Your task to perform on an android device: Search for the new Apple Watch on Best Buy Image 0: 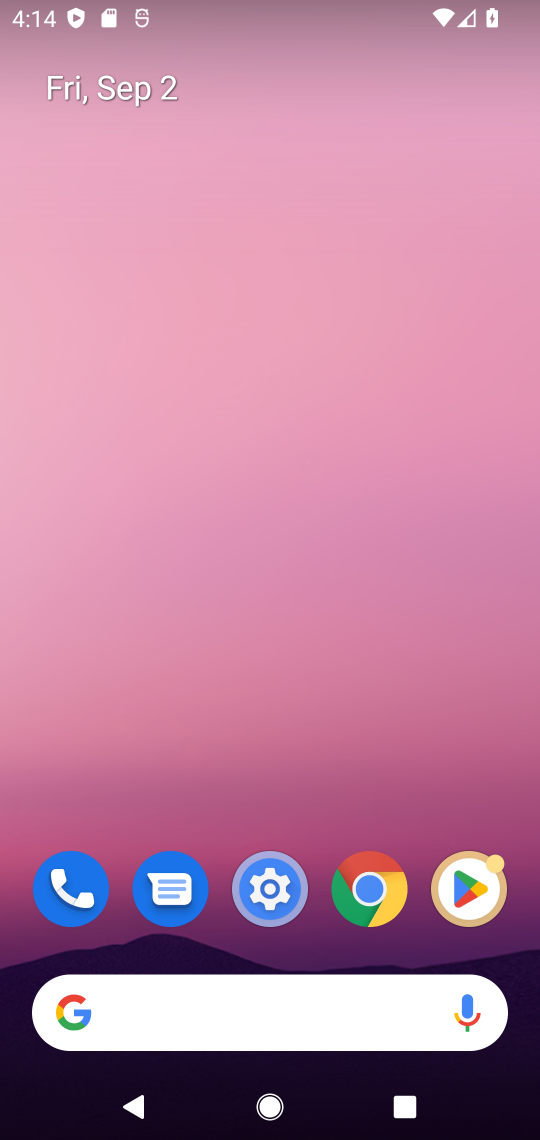
Step 0: click (251, 1019)
Your task to perform on an android device: Search for the new Apple Watch on Best Buy Image 1: 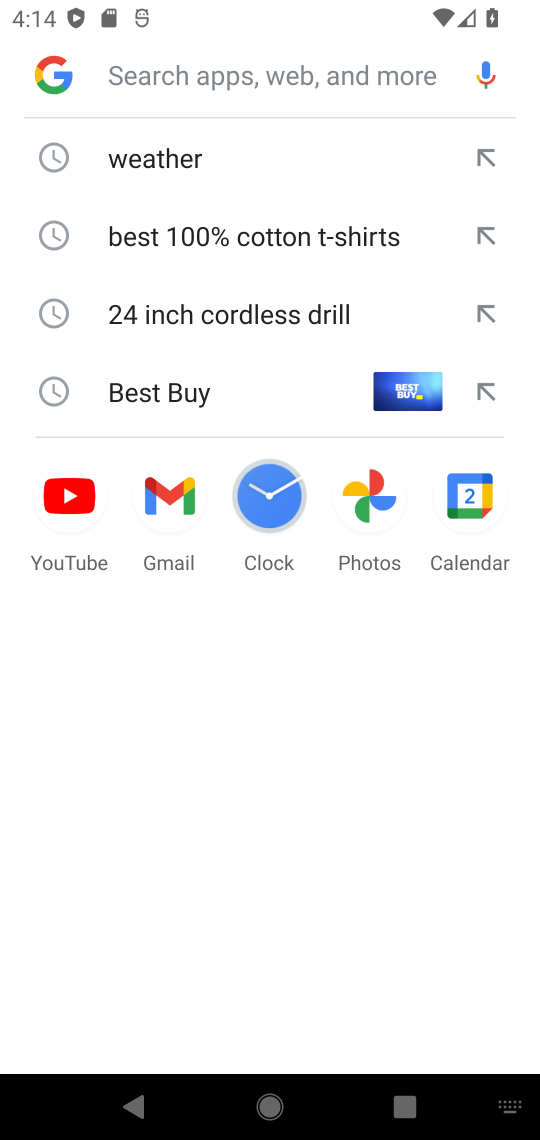
Step 1: type "Best Buy"
Your task to perform on an android device: Search for the new Apple Watch on Best Buy Image 2: 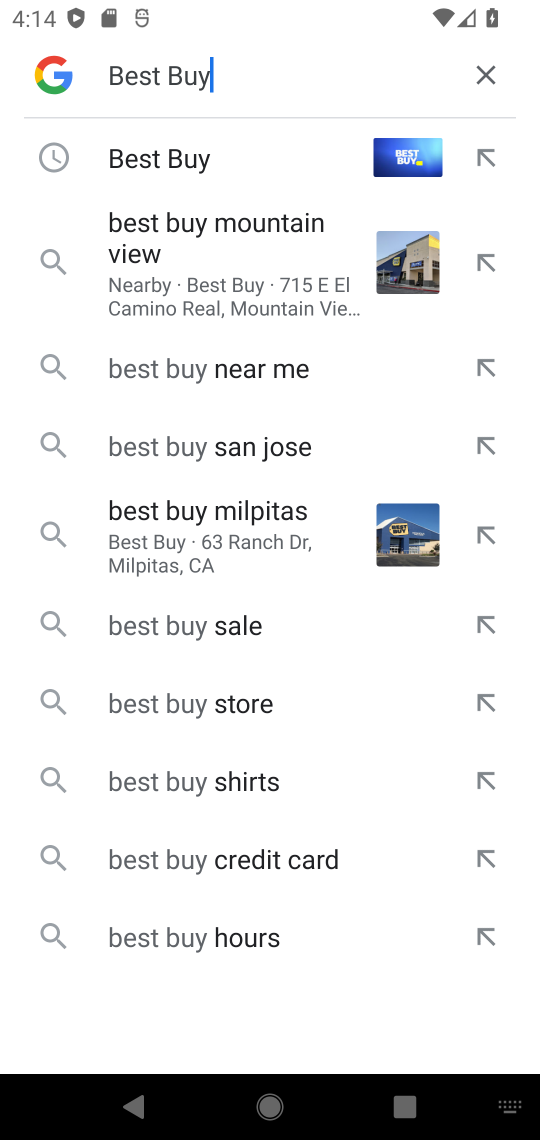
Step 2: click (167, 152)
Your task to perform on an android device: Search for the new Apple Watch on Best Buy Image 3: 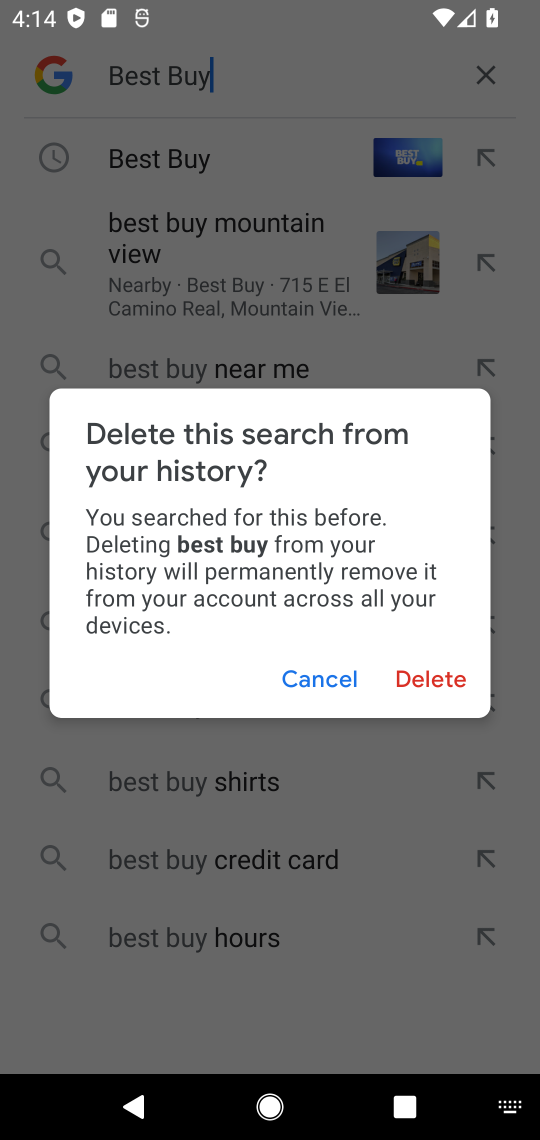
Step 3: click (348, 676)
Your task to perform on an android device: Search for the new Apple Watch on Best Buy Image 4: 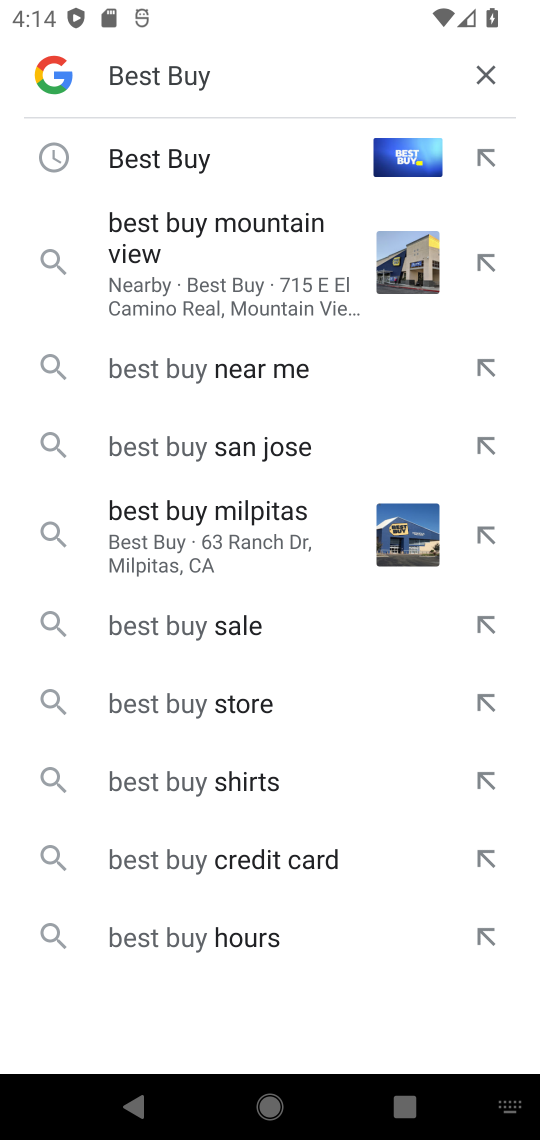
Step 4: click (173, 144)
Your task to perform on an android device: Search for the new Apple Watch on Best Buy Image 5: 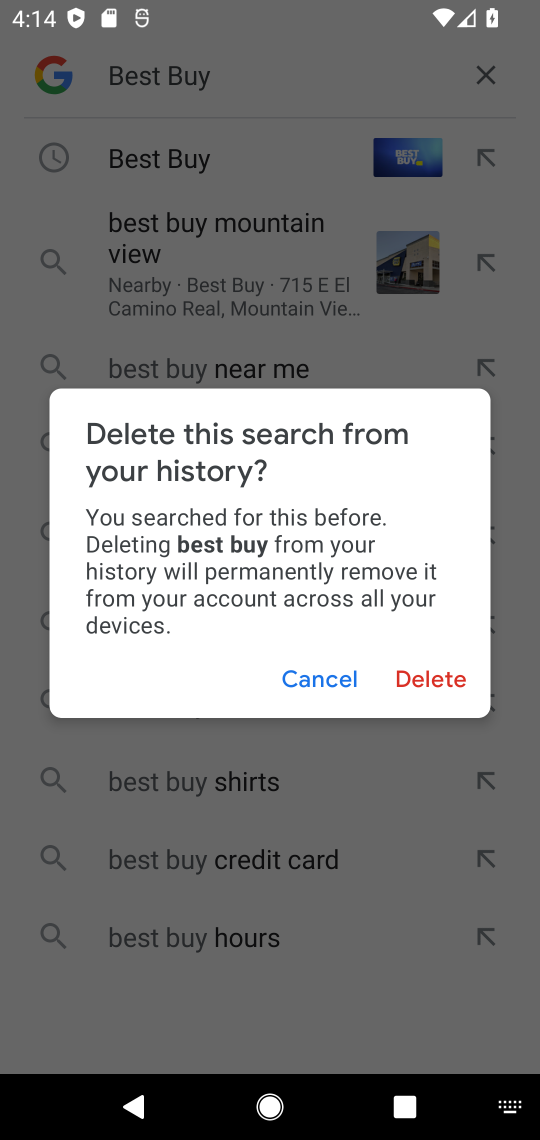
Step 5: click (346, 692)
Your task to perform on an android device: Search for the new Apple Watch on Best Buy Image 6: 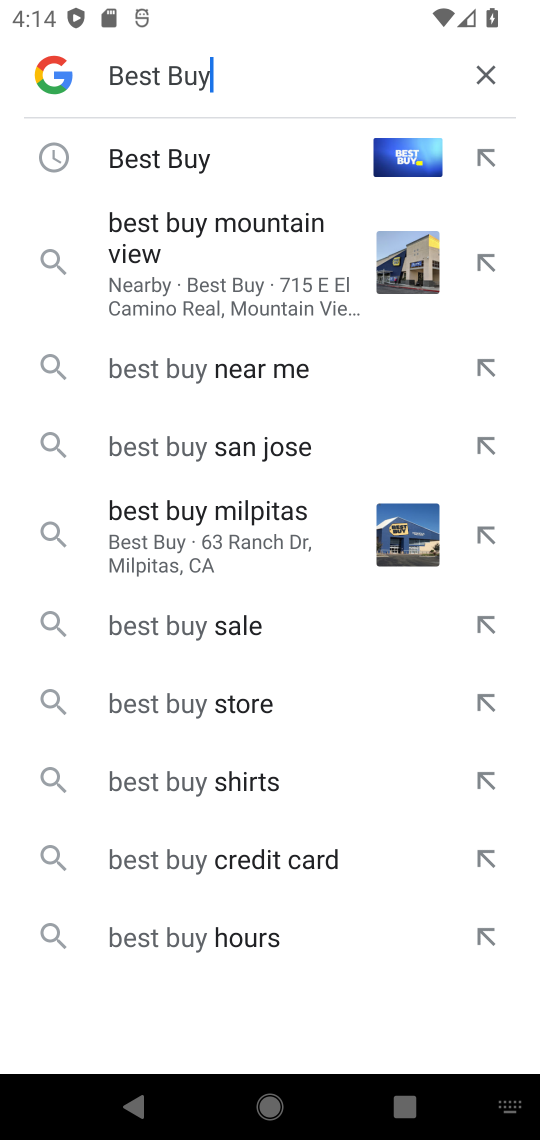
Step 6: click (171, 172)
Your task to perform on an android device: Search for the new Apple Watch on Best Buy Image 7: 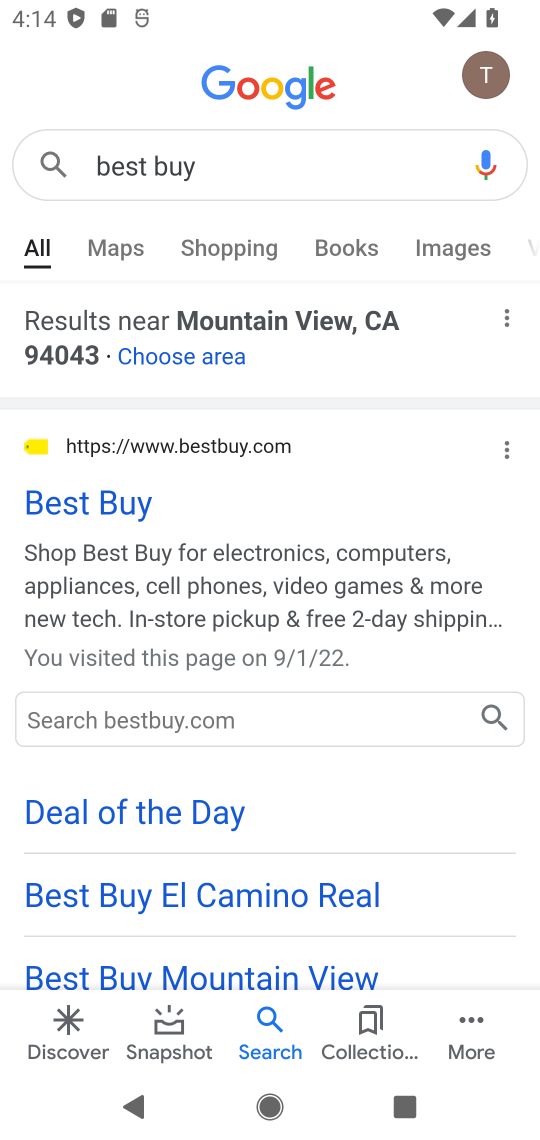
Step 7: click (99, 507)
Your task to perform on an android device: Search for the new Apple Watch on Best Buy Image 8: 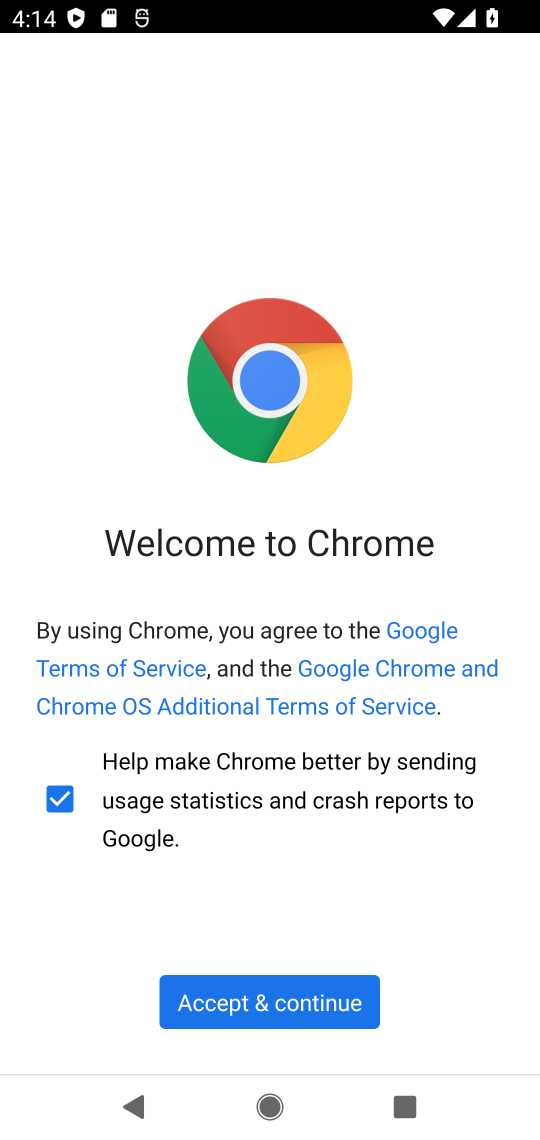
Step 8: click (172, 983)
Your task to perform on an android device: Search for the new Apple Watch on Best Buy Image 9: 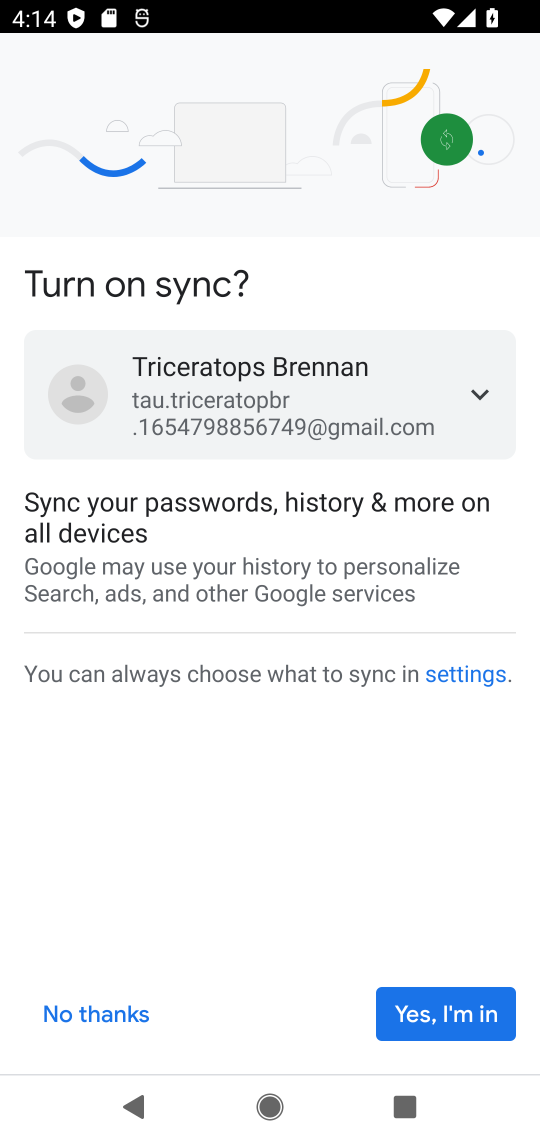
Step 9: click (463, 1028)
Your task to perform on an android device: Search for the new Apple Watch on Best Buy Image 10: 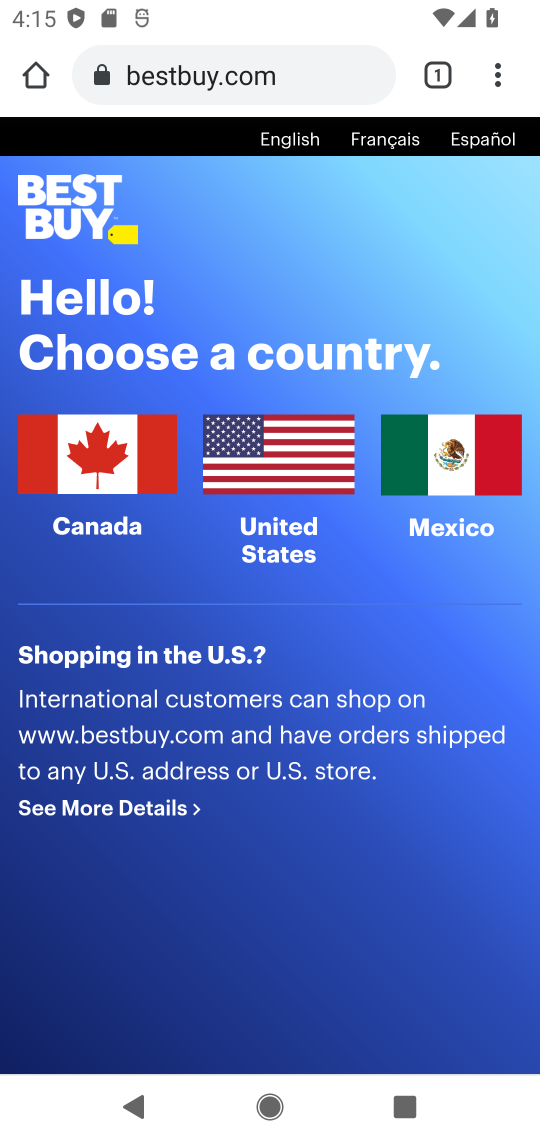
Step 10: drag from (338, 827) to (427, 272)
Your task to perform on an android device: Search for the new Apple Watch on Best Buy Image 11: 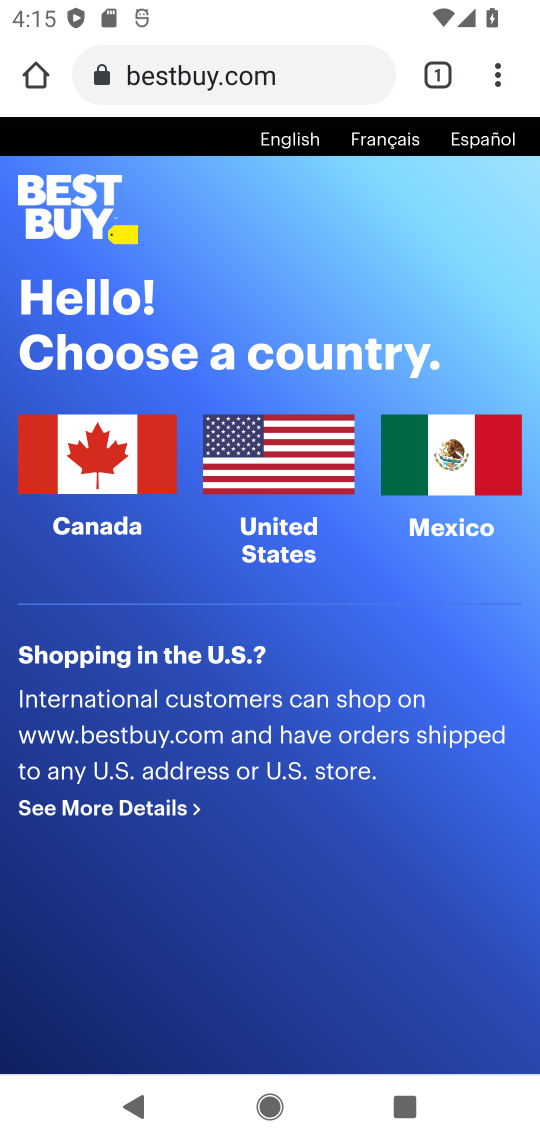
Step 11: drag from (357, 764) to (360, 317)
Your task to perform on an android device: Search for the new Apple Watch on Best Buy Image 12: 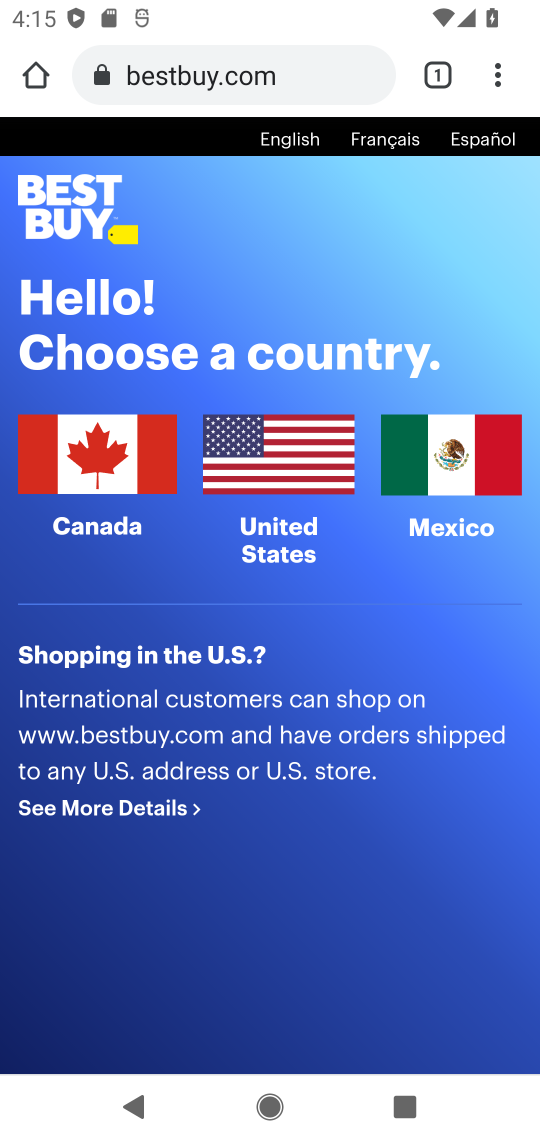
Step 12: click (314, 437)
Your task to perform on an android device: Search for the new Apple Watch on Best Buy Image 13: 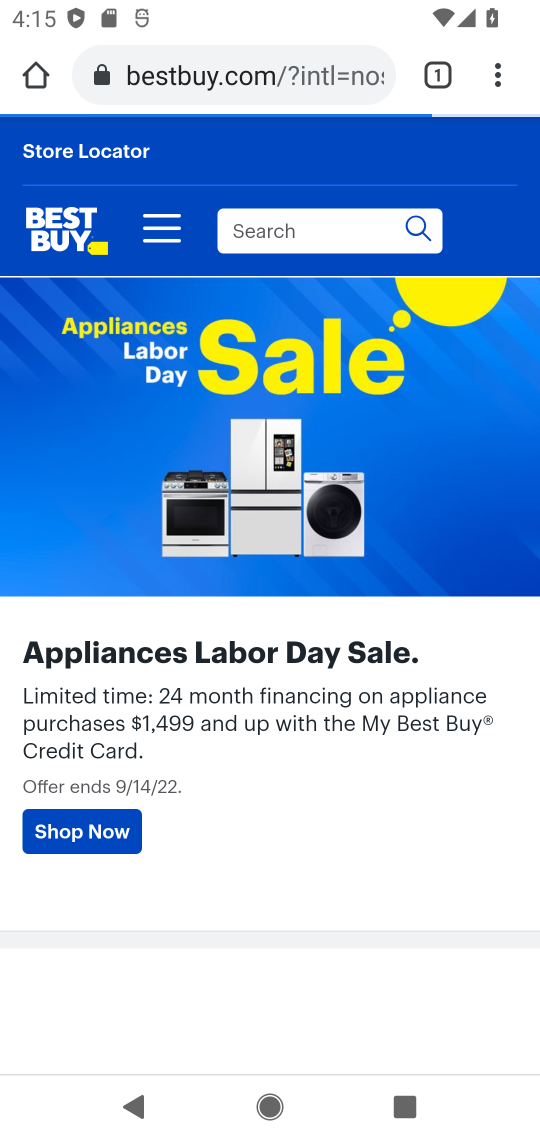
Step 13: click (311, 243)
Your task to perform on an android device: Search for the new Apple Watch on Best Buy Image 14: 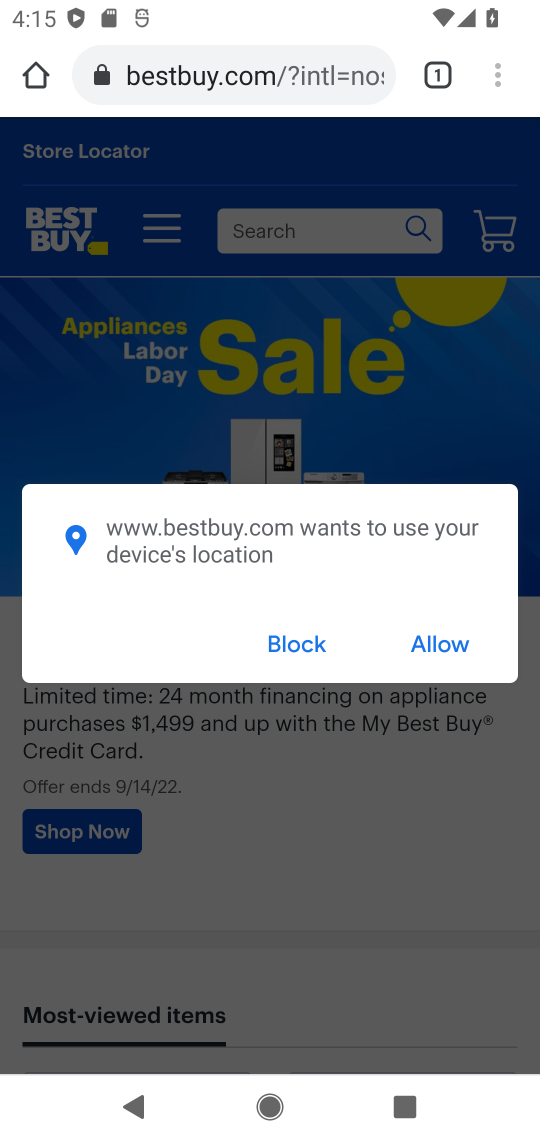
Step 14: type "Apple Watch"
Your task to perform on an android device: Search for the new Apple Watch on Best Buy Image 15: 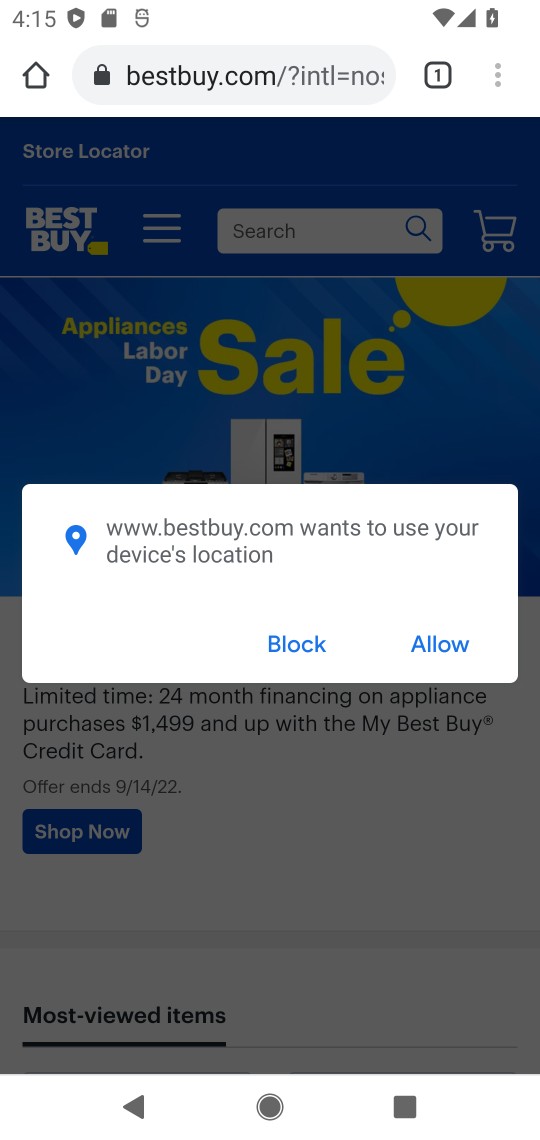
Step 15: click (428, 658)
Your task to perform on an android device: Search for the new Apple Watch on Best Buy Image 16: 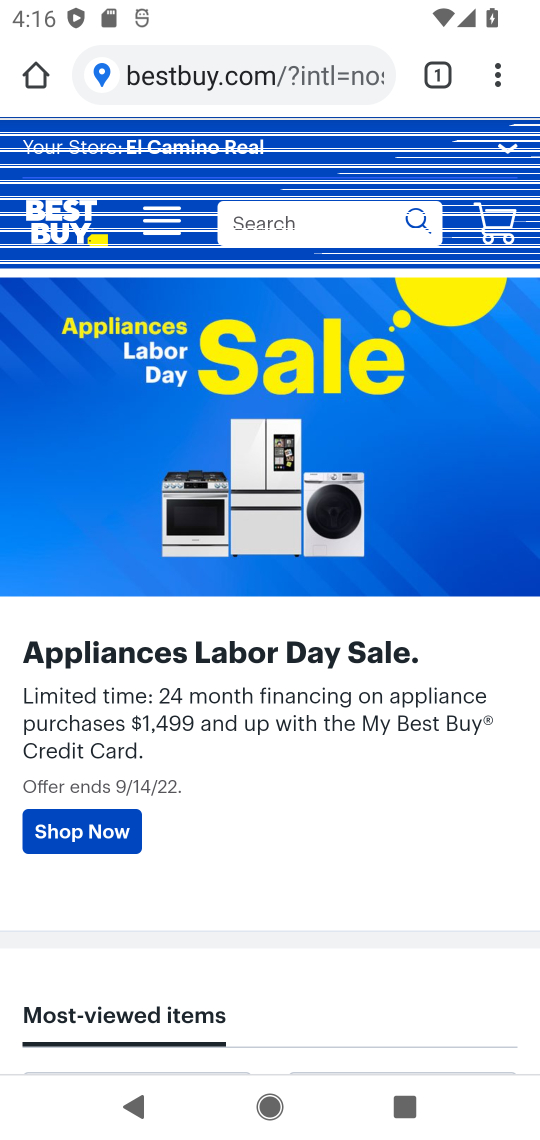
Step 16: click (280, 381)
Your task to perform on an android device: Search for the new Apple Watch on Best Buy Image 17: 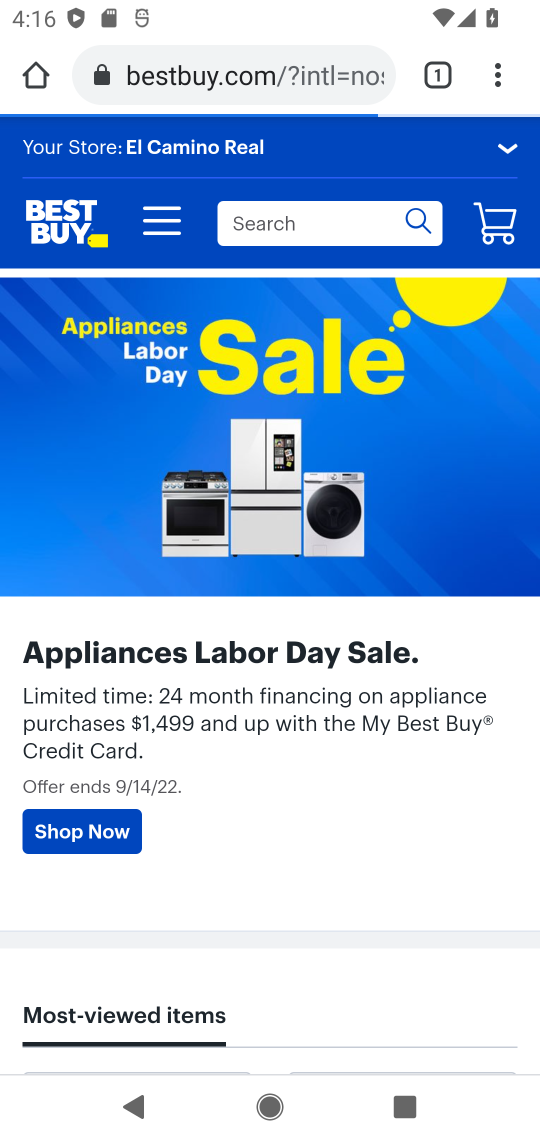
Step 17: drag from (322, 758) to (349, 523)
Your task to perform on an android device: Search for the new Apple Watch on Best Buy Image 18: 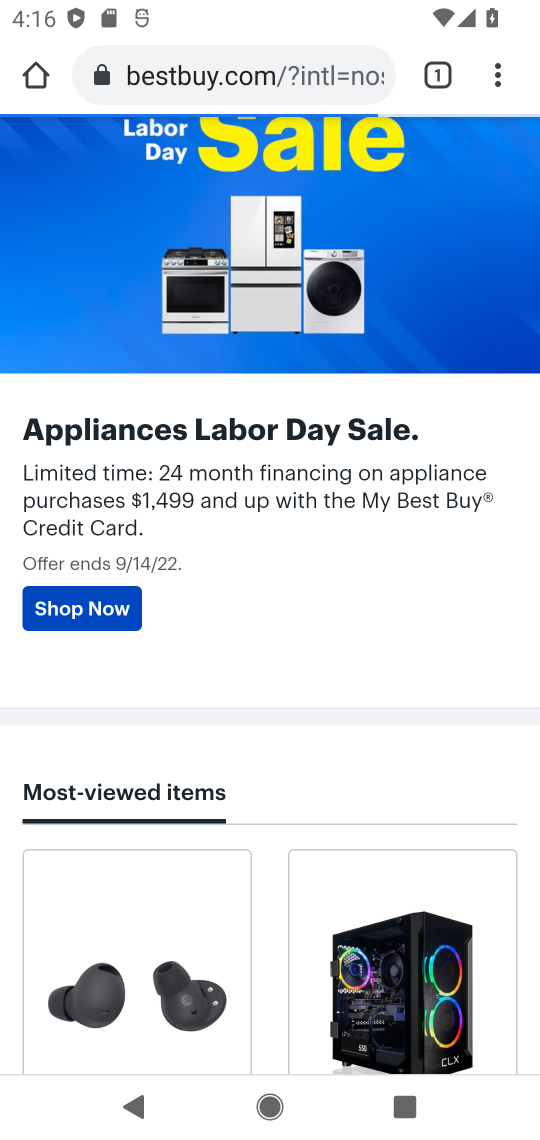
Step 18: drag from (275, 844) to (288, 421)
Your task to perform on an android device: Search for the new Apple Watch on Best Buy Image 19: 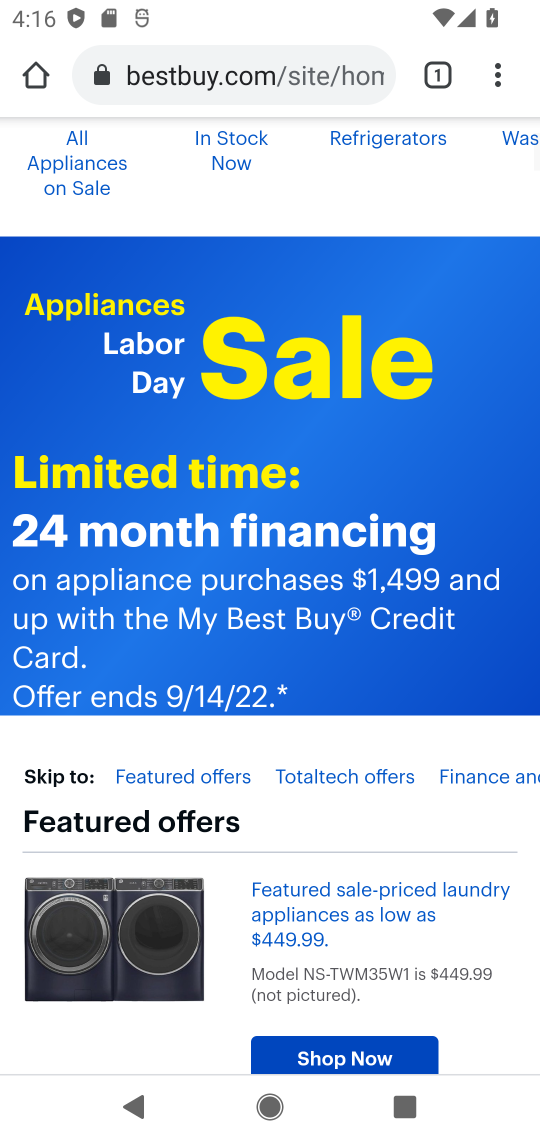
Step 19: drag from (287, 729) to (382, 281)
Your task to perform on an android device: Search for the new Apple Watch on Best Buy Image 20: 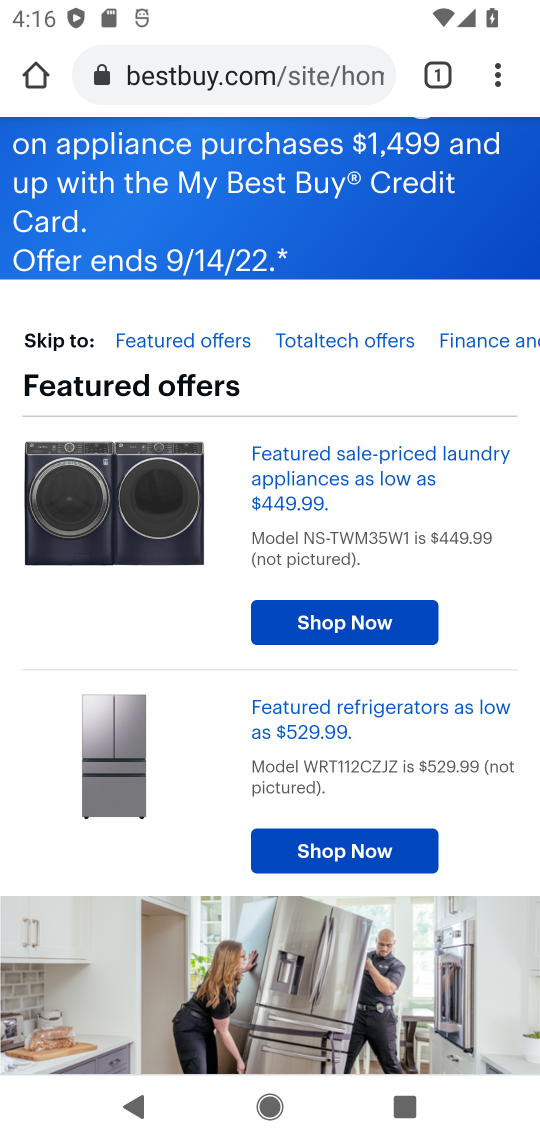
Step 20: drag from (303, 658) to (333, 408)
Your task to perform on an android device: Search for the new Apple Watch on Best Buy Image 21: 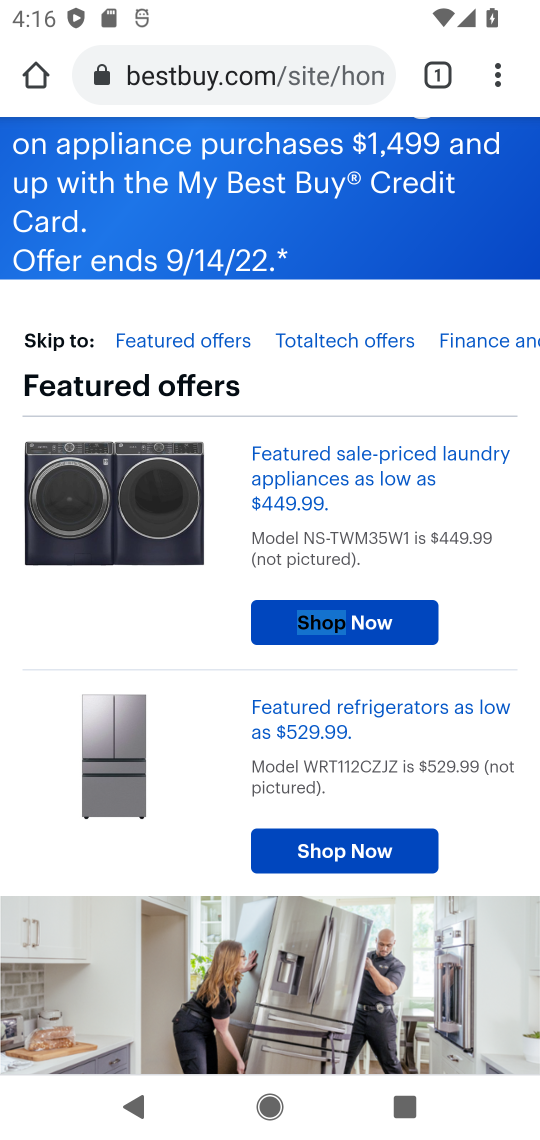
Step 21: click (347, 460)
Your task to perform on an android device: Search for the new Apple Watch on Best Buy Image 22: 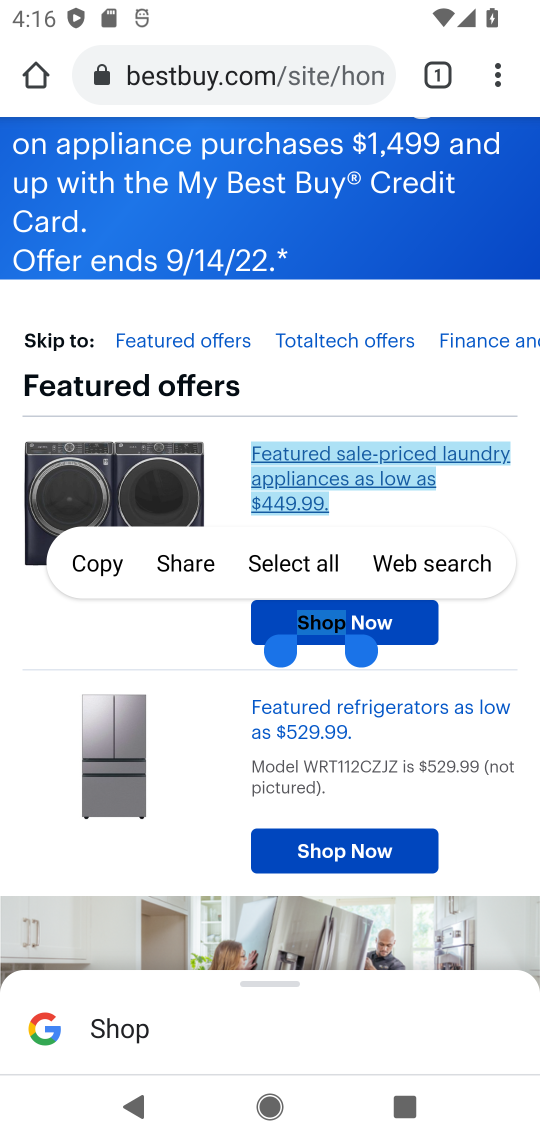
Step 22: click (311, 449)
Your task to perform on an android device: Search for the new Apple Watch on Best Buy Image 23: 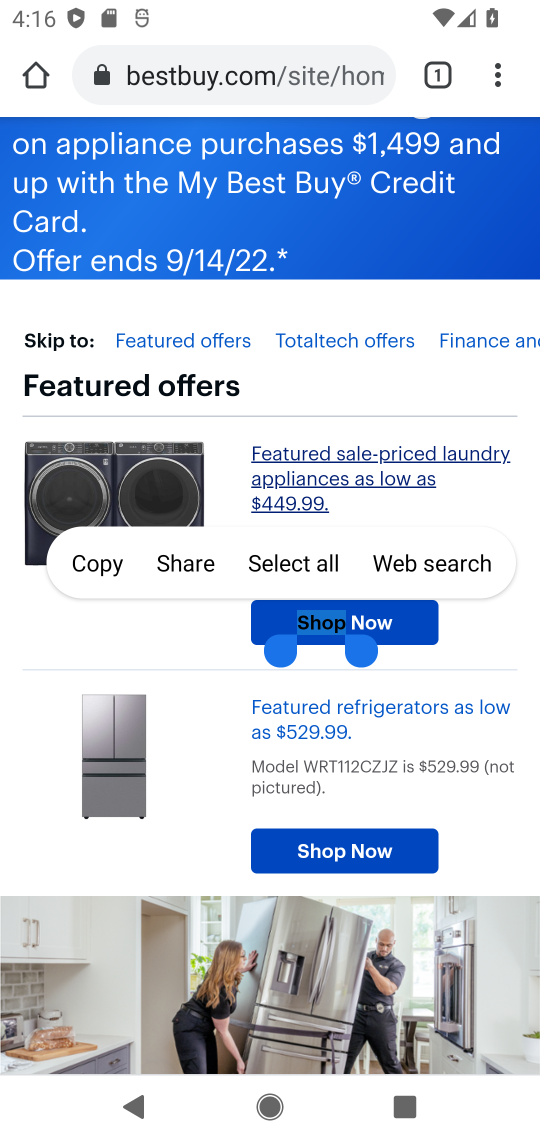
Step 23: drag from (309, 562) to (311, 286)
Your task to perform on an android device: Search for the new Apple Watch on Best Buy Image 24: 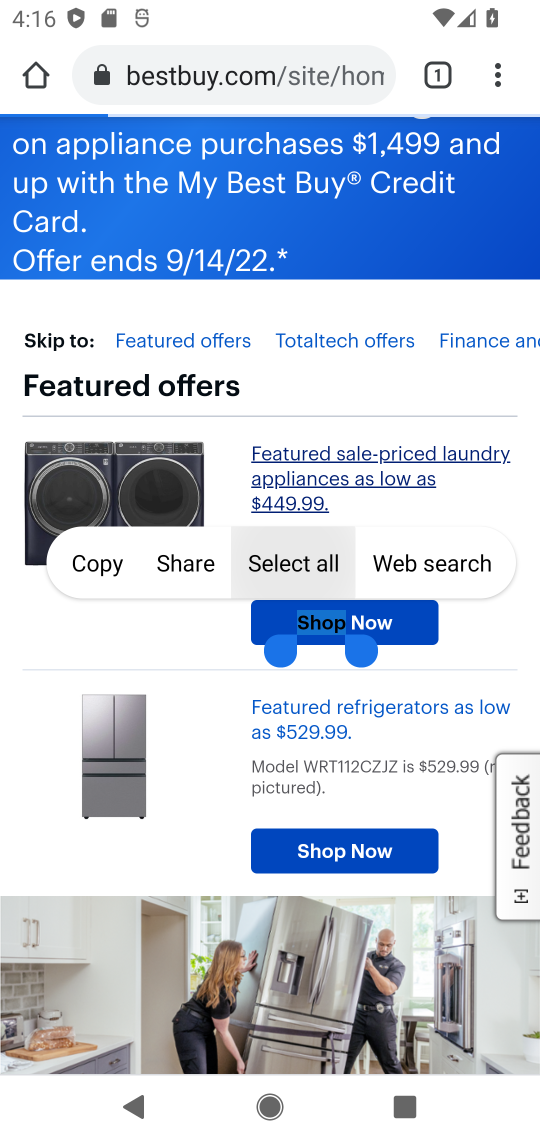
Step 24: click (320, 310)
Your task to perform on an android device: Search for the new Apple Watch on Best Buy Image 25: 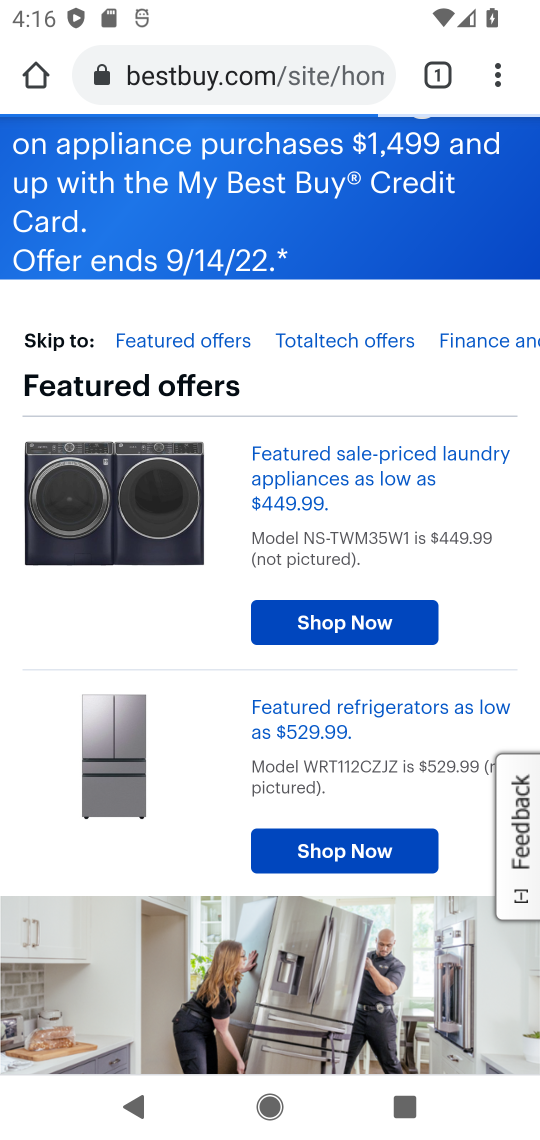
Step 25: drag from (235, 763) to (264, 510)
Your task to perform on an android device: Search for the new Apple Watch on Best Buy Image 26: 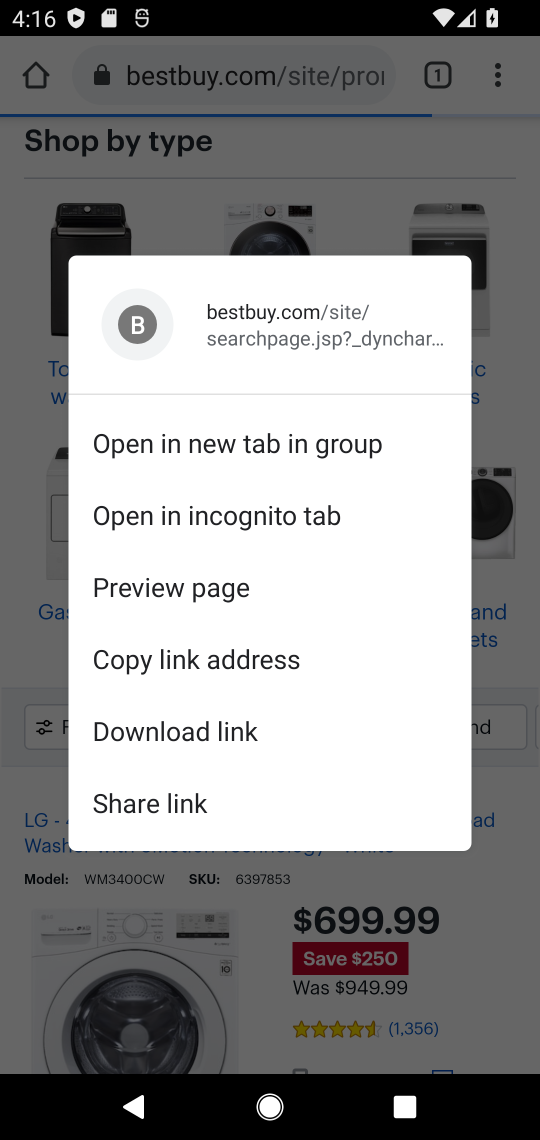
Step 26: drag from (338, 470) to (450, 879)
Your task to perform on an android device: Search for the new Apple Watch on Best Buy Image 27: 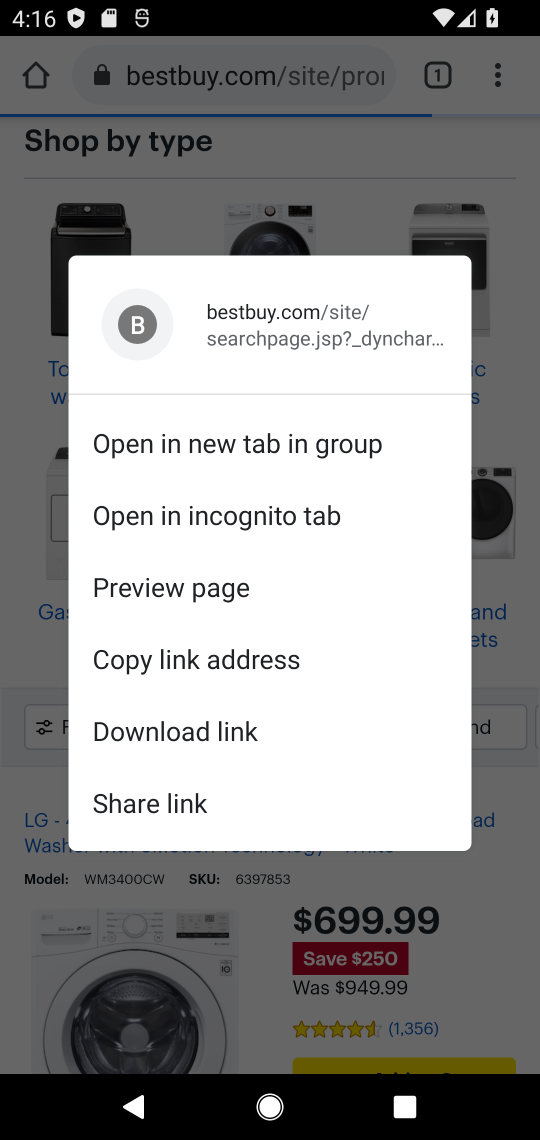
Step 27: drag from (498, 518) to (517, 801)
Your task to perform on an android device: Search for the new Apple Watch on Best Buy Image 28: 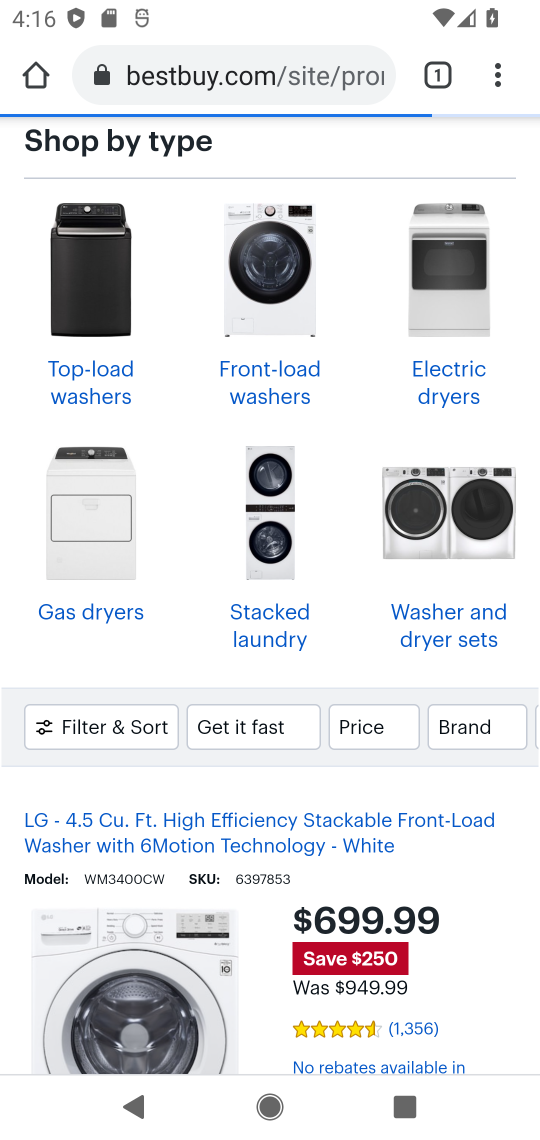
Step 28: drag from (445, 471) to (495, 836)
Your task to perform on an android device: Search for the new Apple Watch on Best Buy Image 29: 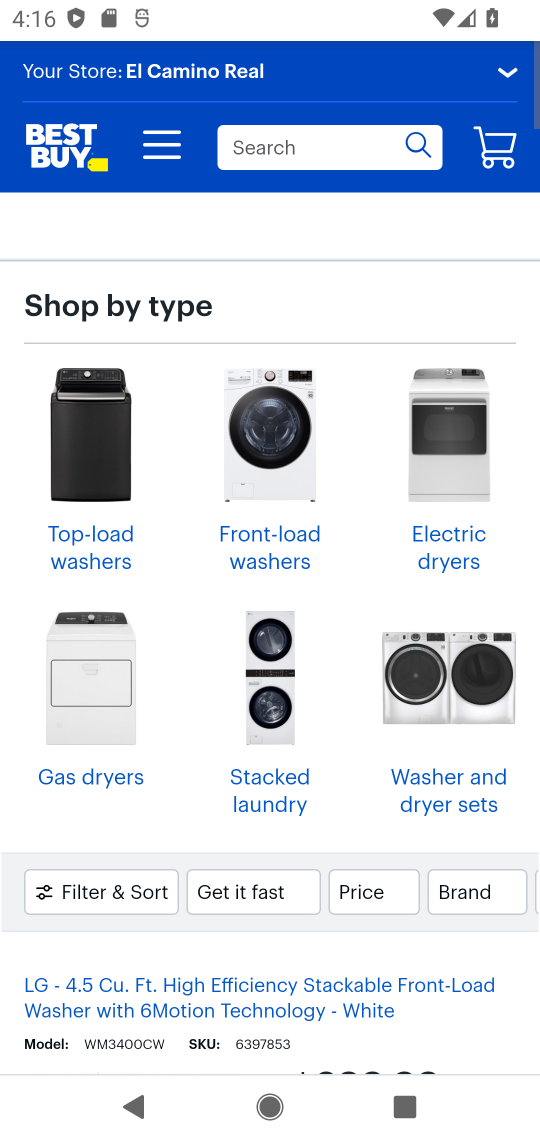
Step 29: drag from (472, 566) to (476, 844)
Your task to perform on an android device: Search for the new Apple Watch on Best Buy Image 30: 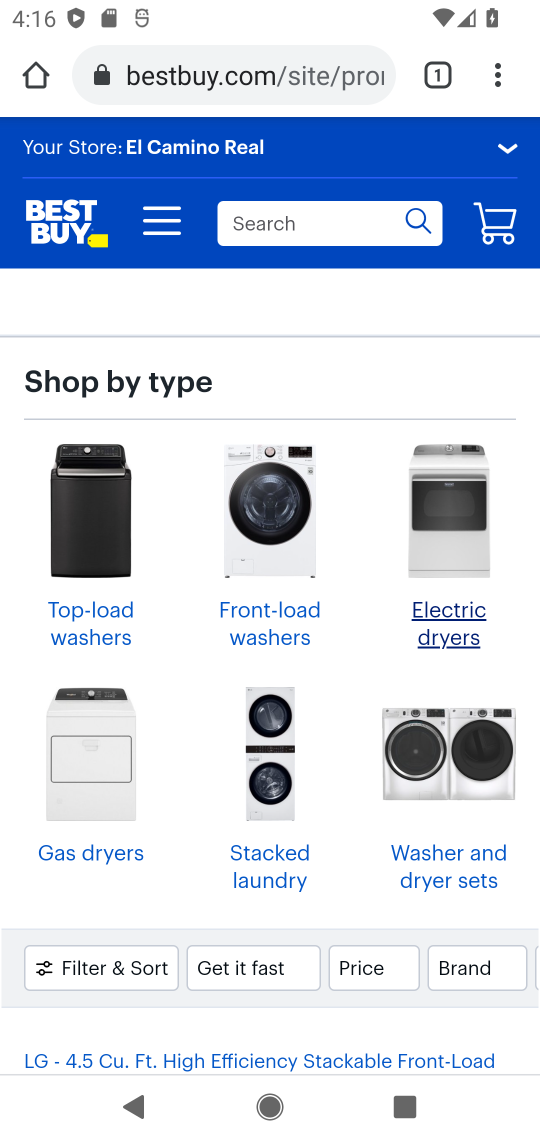
Step 30: drag from (306, 367) to (319, 735)
Your task to perform on an android device: Search for the new Apple Watch on Best Buy Image 31: 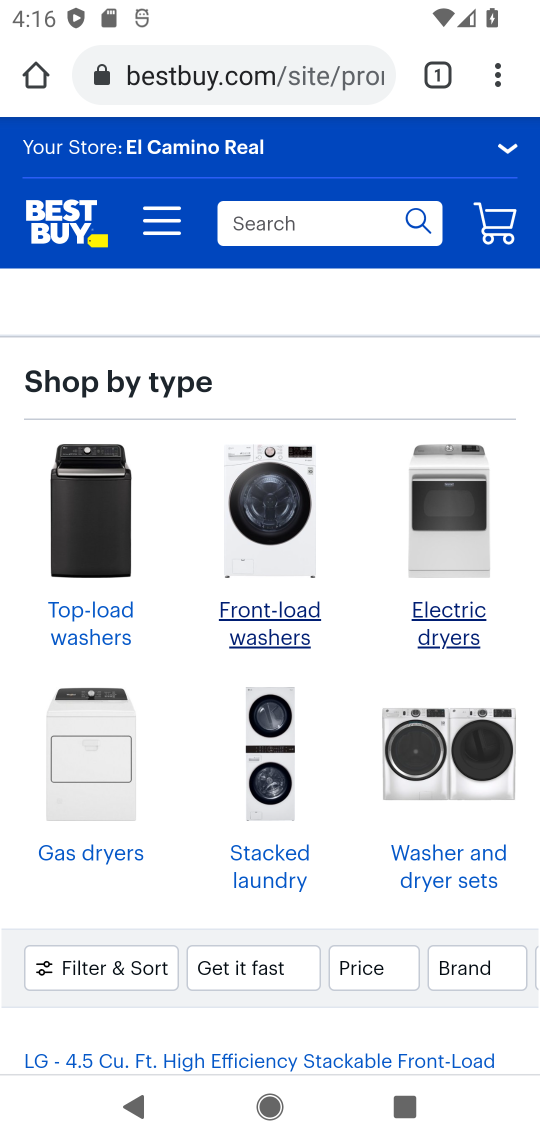
Step 31: click (268, 217)
Your task to perform on an android device: Search for the new Apple Watch on Best Buy Image 32: 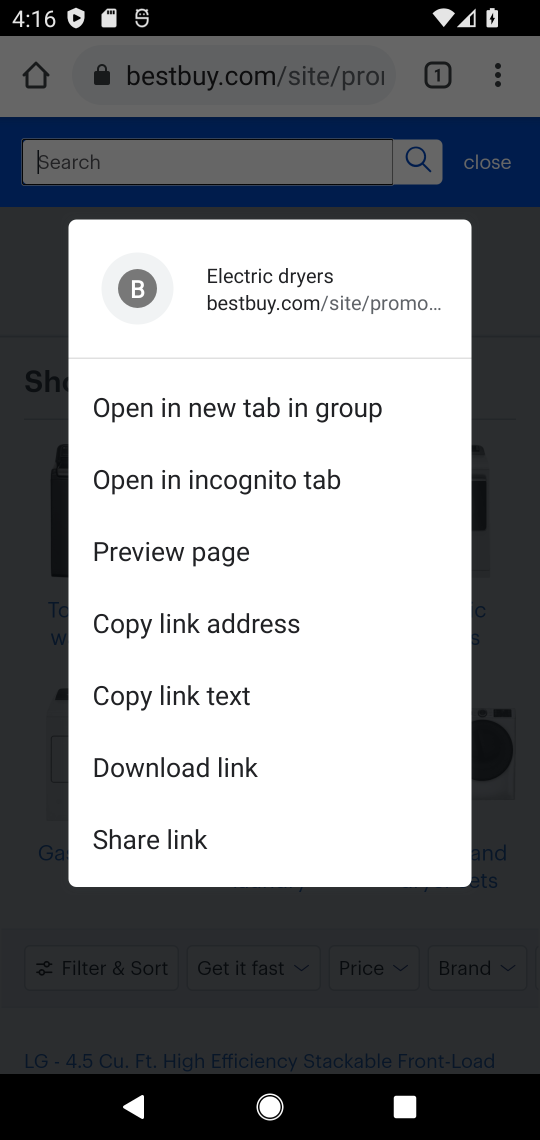
Step 32: click (531, 503)
Your task to perform on an android device: Search for the new Apple Watch on Best Buy Image 33: 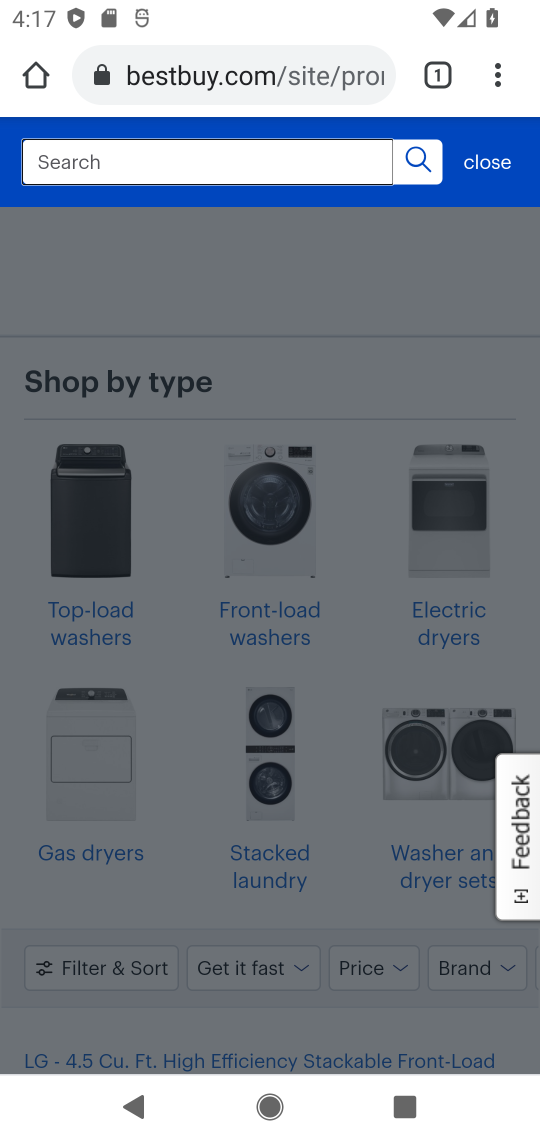
Step 33: type "Apple Watch"
Your task to perform on an android device: Search for the new Apple Watch on Best Buy Image 34: 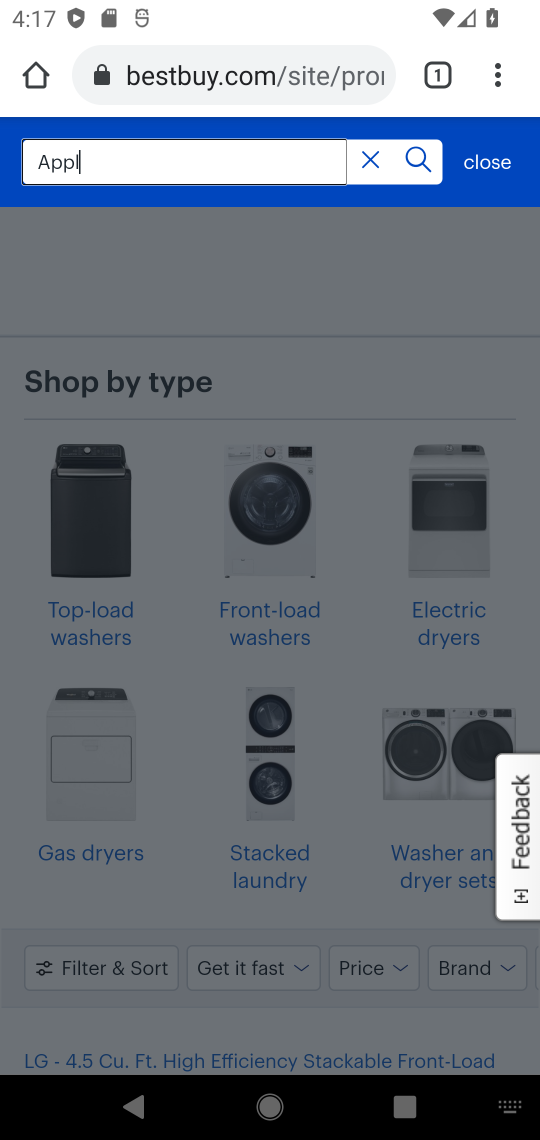
Step 34: type ""
Your task to perform on an android device: Search for the new Apple Watch on Best Buy Image 35: 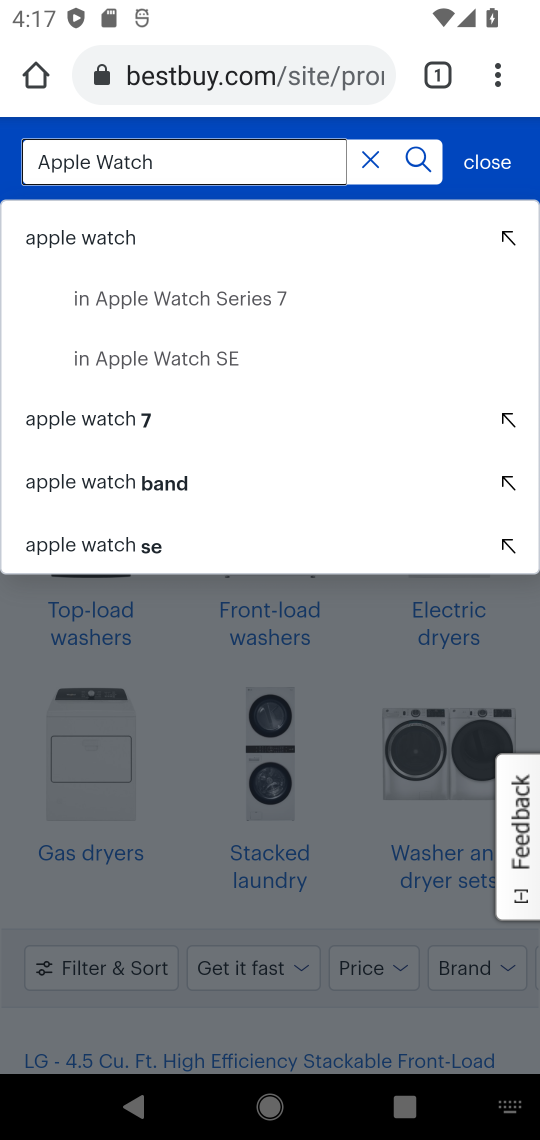
Step 35: click (195, 231)
Your task to perform on an android device: Search for the new Apple Watch on Best Buy Image 36: 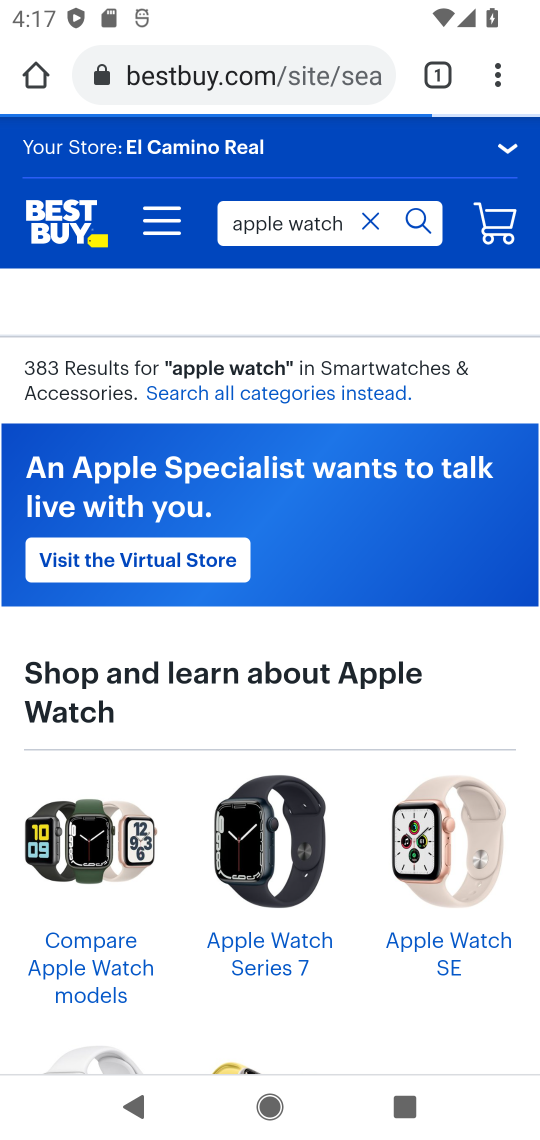
Step 36: task complete